Your task to perform on an android device: turn off sleep mode Image 0: 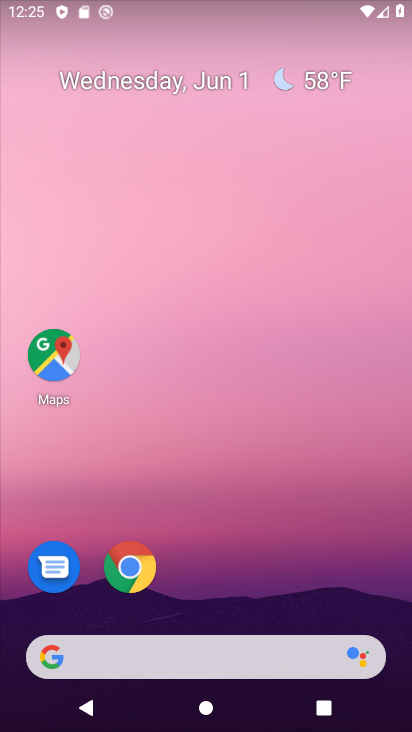
Step 0: drag from (271, 576) to (281, 177)
Your task to perform on an android device: turn off sleep mode Image 1: 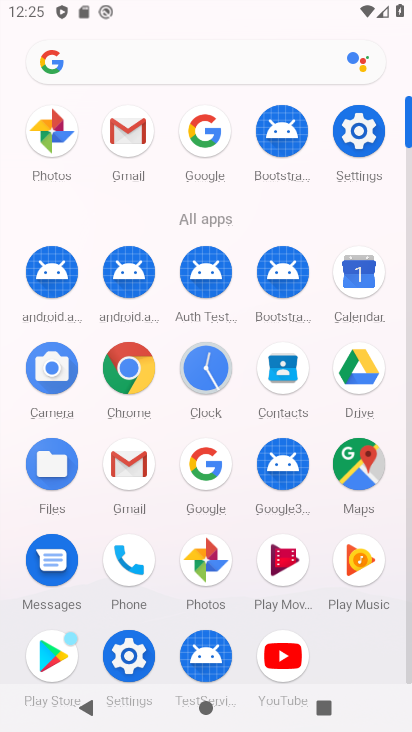
Step 1: click (357, 116)
Your task to perform on an android device: turn off sleep mode Image 2: 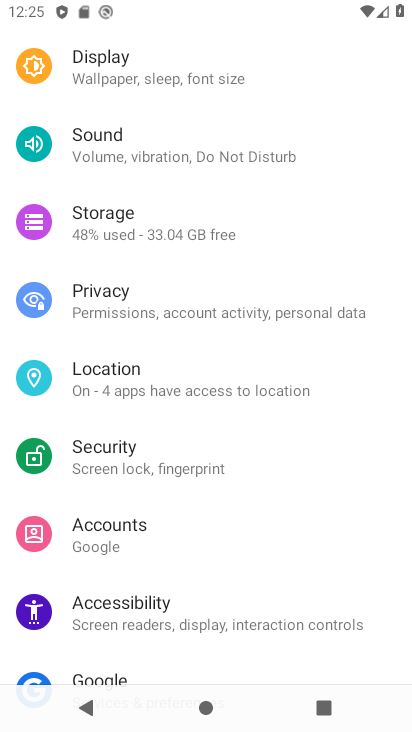
Step 2: click (158, 80)
Your task to perform on an android device: turn off sleep mode Image 3: 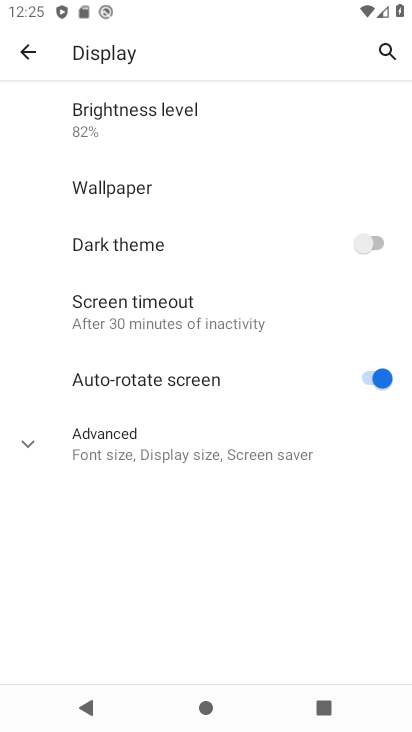
Step 3: click (153, 303)
Your task to perform on an android device: turn off sleep mode Image 4: 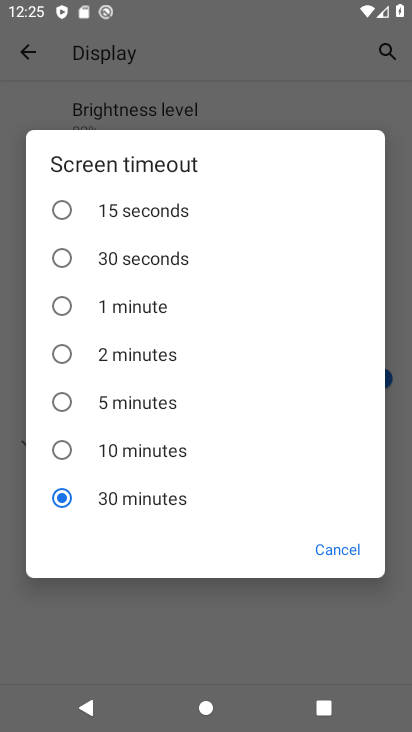
Step 4: task complete